Your task to perform on an android device: Open Google Image 0: 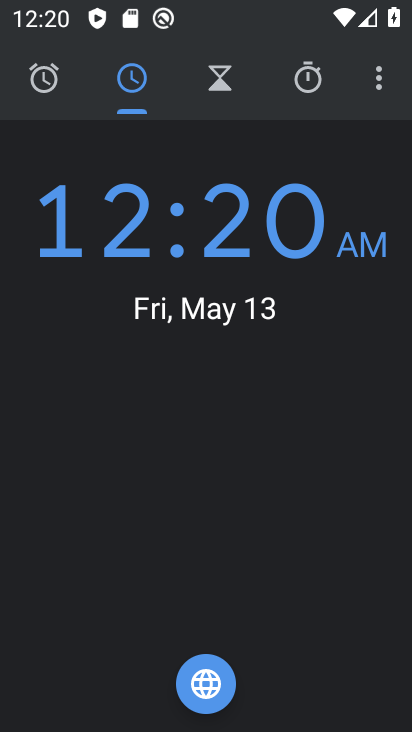
Step 0: press home button
Your task to perform on an android device: Open Google Image 1: 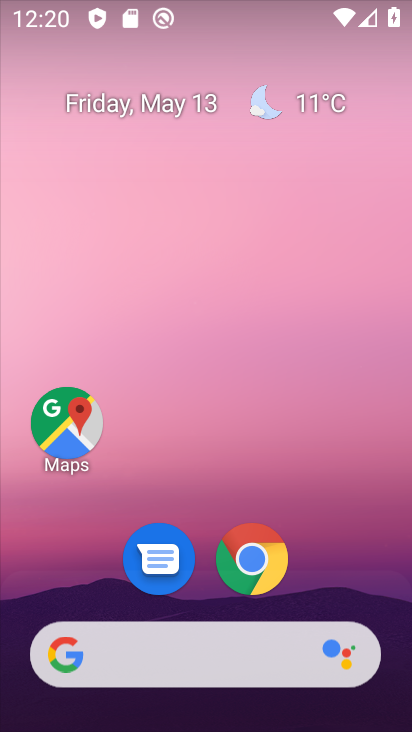
Step 1: drag from (302, 488) to (329, 12)
Your task to perform on an android device: Open Google Image 2: 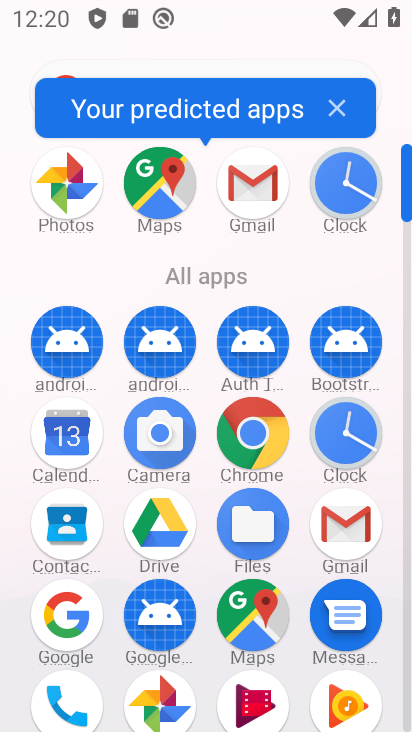
Step 2: click (64, 628)
Your task to perform on an android device: Open Google Image 3: 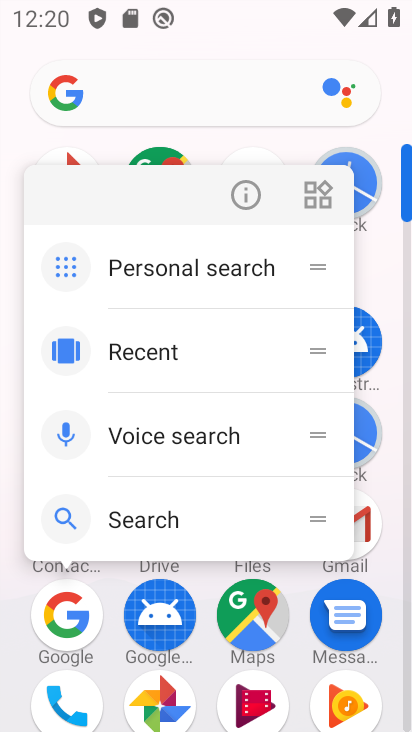
Step 3: click (84, 625)
Your task to perform on an android device: Open Google Image 4: 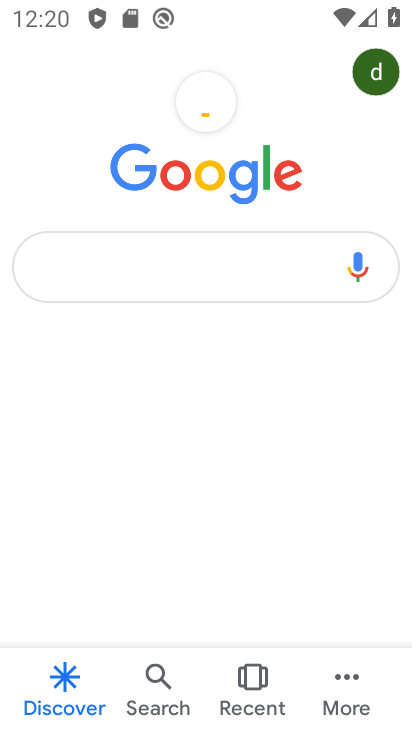
Step 4: task complete